Your task to perform on an android device: find which apps use the phone's location Image 0: 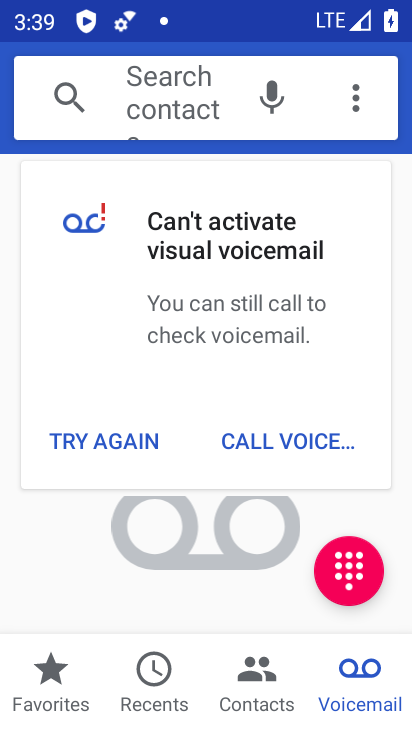
Step 0: press home button
Your task to perform on an android device: find which apps use the phone's location Image 1: 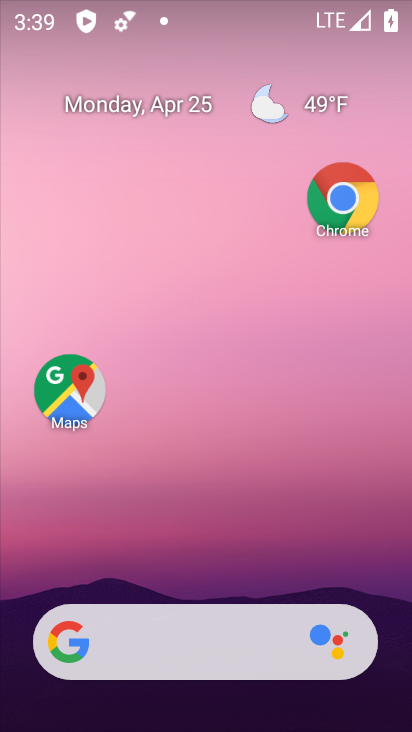
Step 1: drag from (168, 657) to (330, 49)
Your task to perform on an android device: find which apps use the phone's location Image 2: 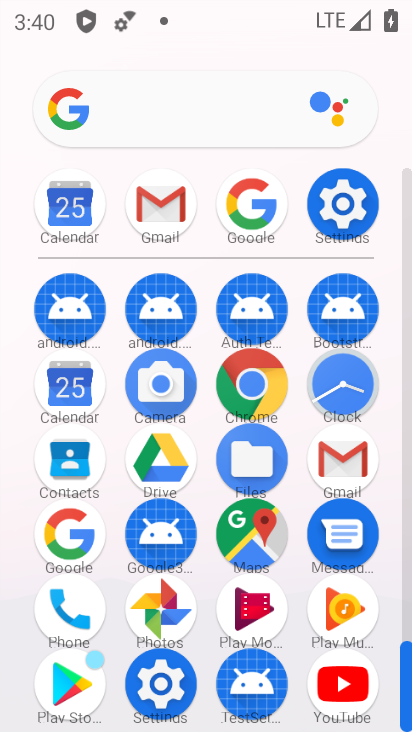
Step 2: click (351, 209)
Your task to perform on an android device: find which apps use the phone's location Image 3: 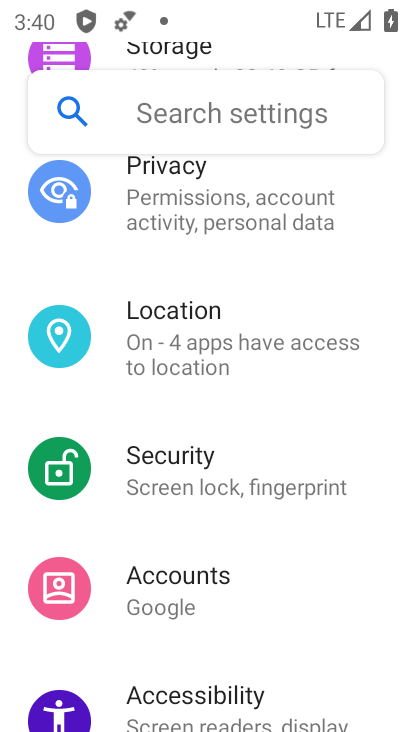
Step 3: click (192, 310)
Your task to perform on an android device: find which apps use the phone's location Image 4: 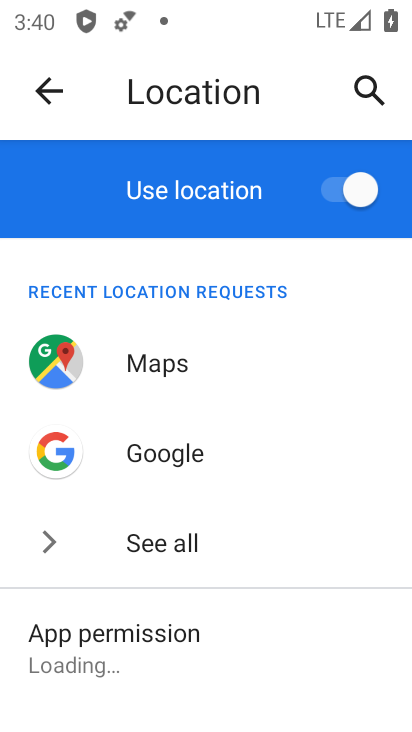
Step 4: drag from (218, 583) to (370, 96)
Your task to perform on an android device: find which apps use the phone's location Image 5: 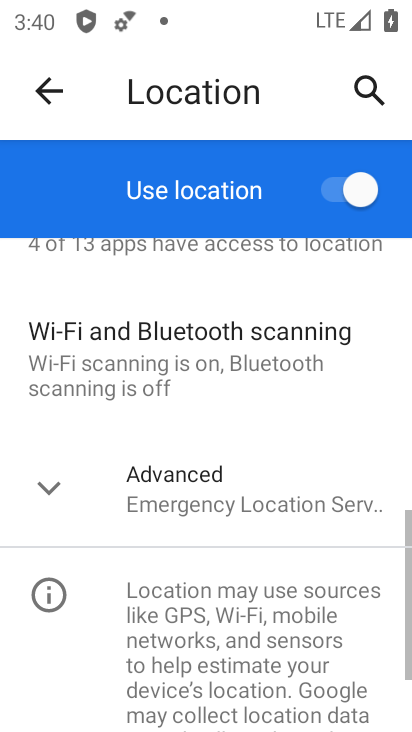
Step 5: drag from (282, 252) to (249, 586)
Your task to perform on an android device: find which apps use the phone's location Image 6: 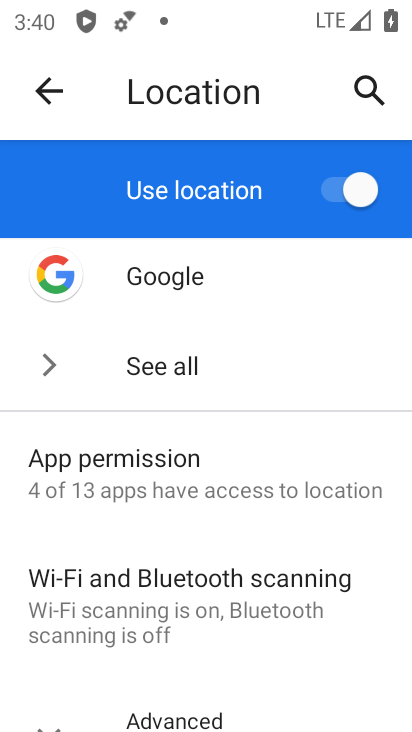
Step 6: click (169, 365)
Your task to perform on an android device: find which apps use the phone's location Image 7: 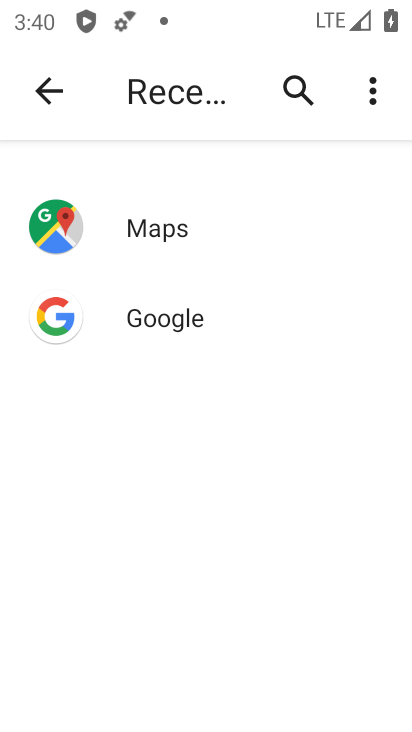
Step 7: drag from (182, 542) to (336, 94)
Your task to perform on an android device: find which apps use the phone's location Image 8: 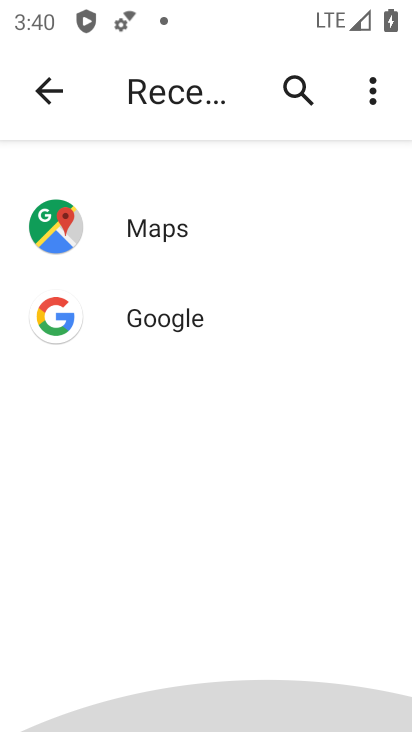
Step 8: click (46, 92)
Your task to perform on an android device: find which apps use the phone's location Image 9: 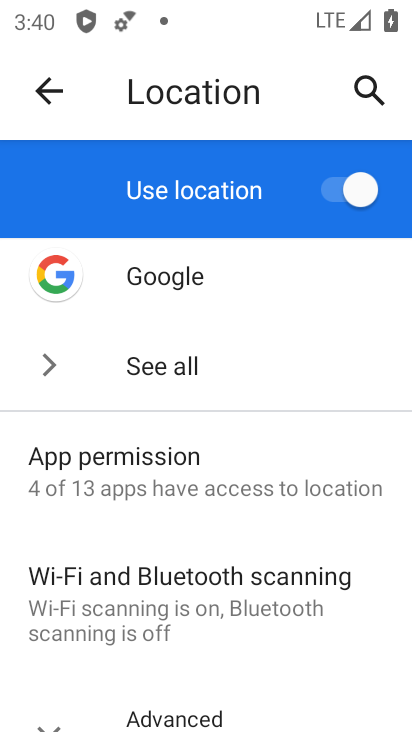
Step 9: click (160, 371)
Your task to perform on an android device: find which apps use the phone's location Image 10: 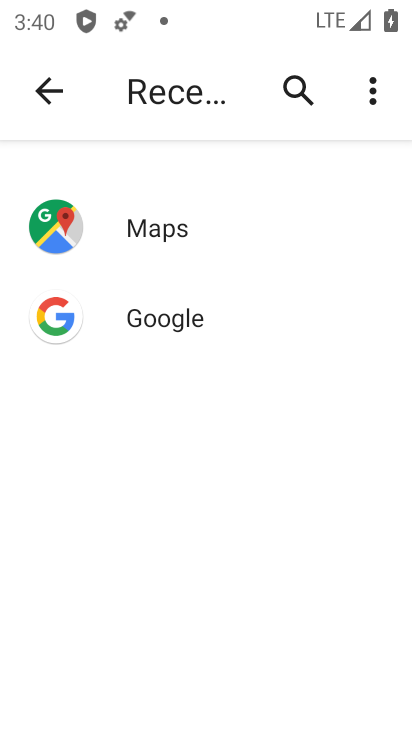
Step 10: click (41, 86)
Your task to perform on an android device: find which apps use the phone's location Image 11: 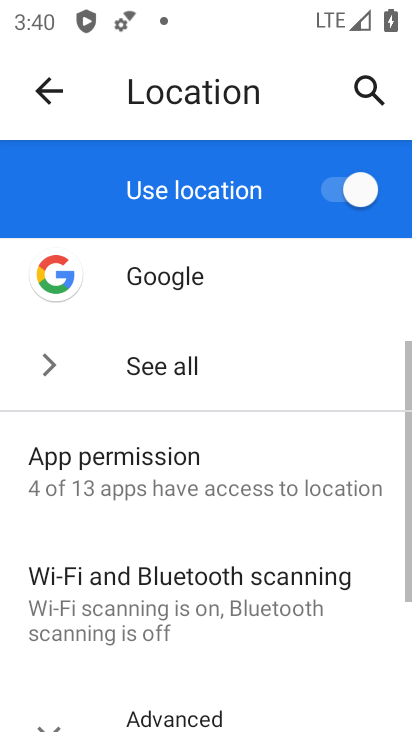
Step 11: drag from (253, 297) to (254, 620)
Your task to perform on an android device: find which apps use the phone's location Image 12: 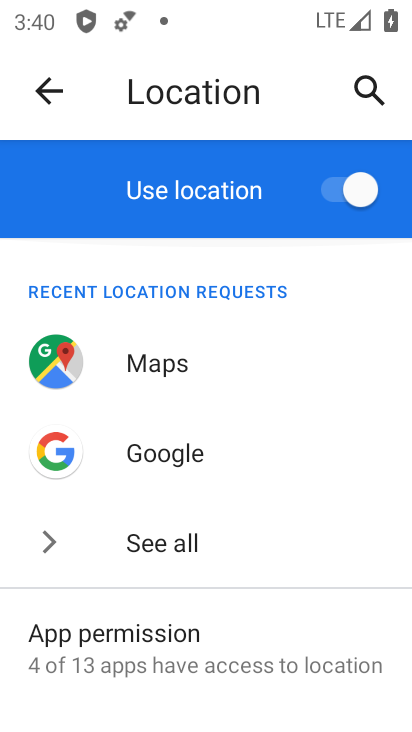
Step 12: click (127, 644)
Your task to perform on an android device: find which apps use the phone's location Image 13: 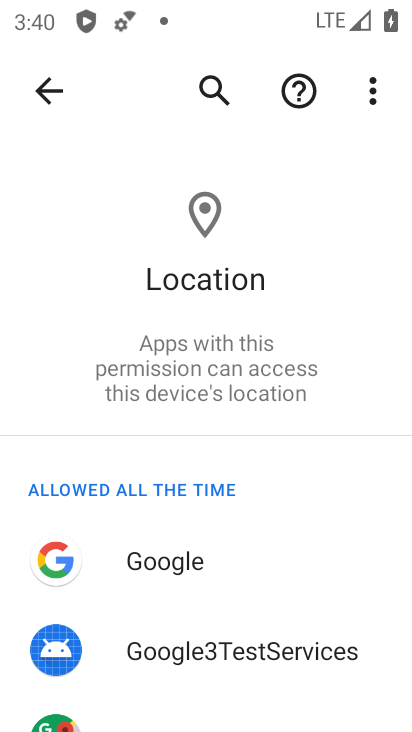
Step 13: drag from (138, 636) to (386, 37)
Your task to perform on an android device: find which apps use the phone's location Image 14: 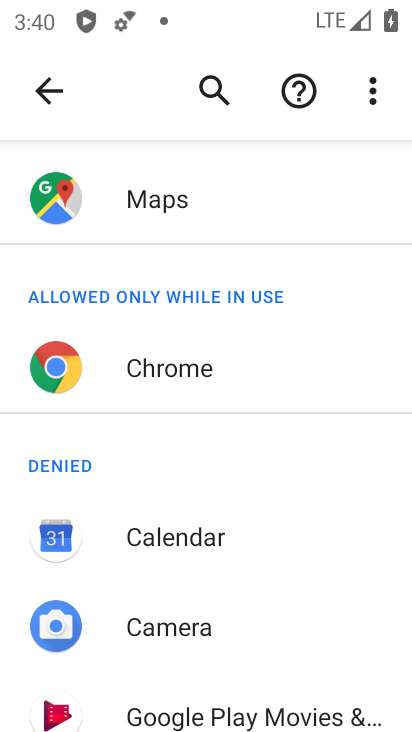
Step 14: drag from (211, 653) to (406, 156)
Your task to perform on an android device: find which apps use the phone's location Image 15: 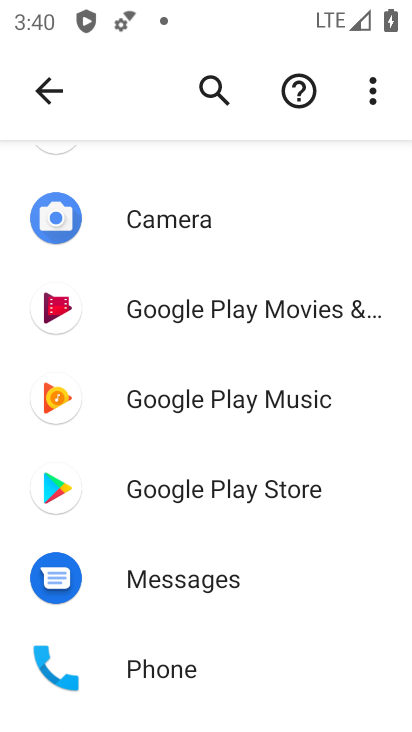
Step 15: click (179, 668)
Your task to perform on an android device: find which apps use the phone's location Image 16: 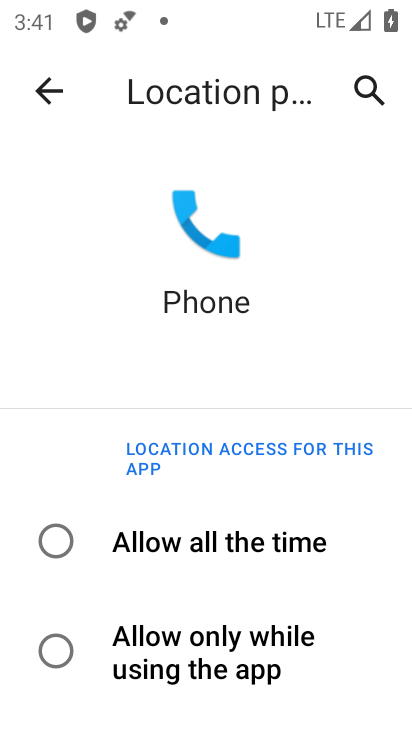
Step 16: task complete